Your task to perform on an android device: Go to display settings Image 0: 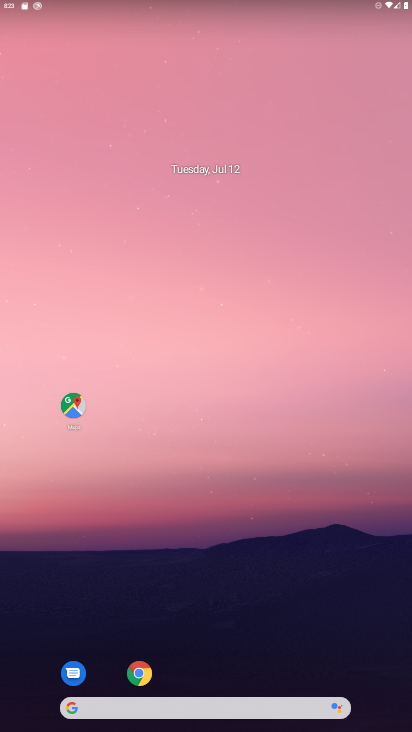
Step 0: drag from (231, 641) to (265, 59)
Your task to perform on an android device: Go to display settings Image 1: 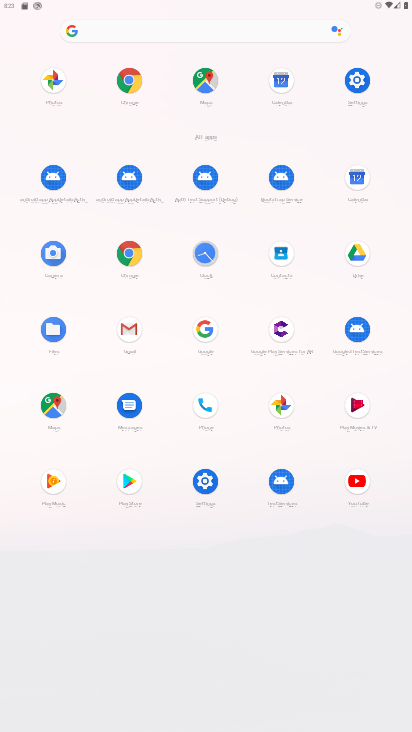
Step 1: click (199, 471)
Your task to perform on an android device: Go to display settings Image 2: 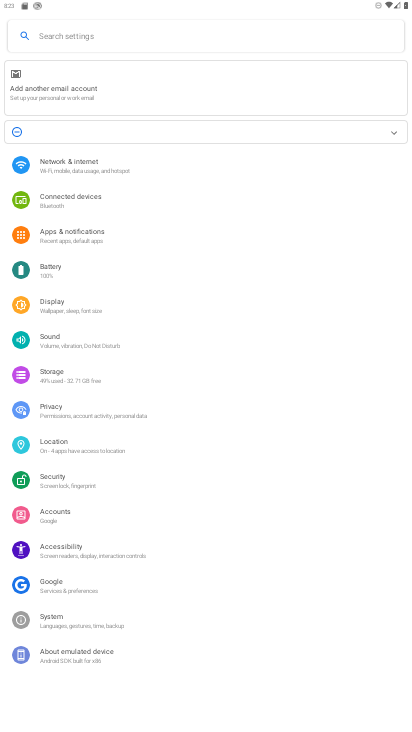
Step 2: click (50, 305)
Your task to perform on an android device: Go to display settings Image 3: 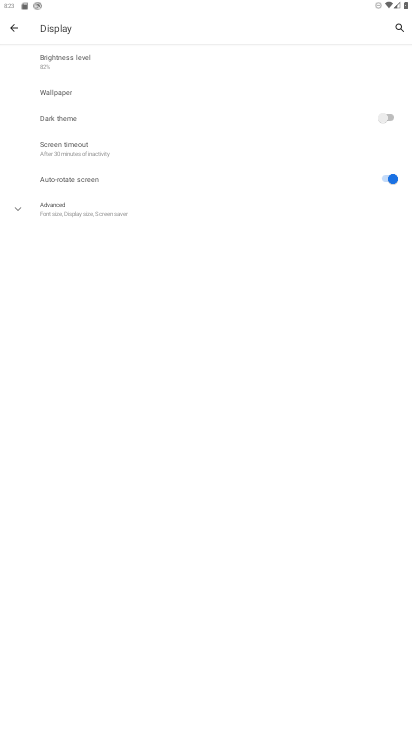
Step 3: task complete